Your task to perform on an android device: visit the assistant section in the google photos Image 0: 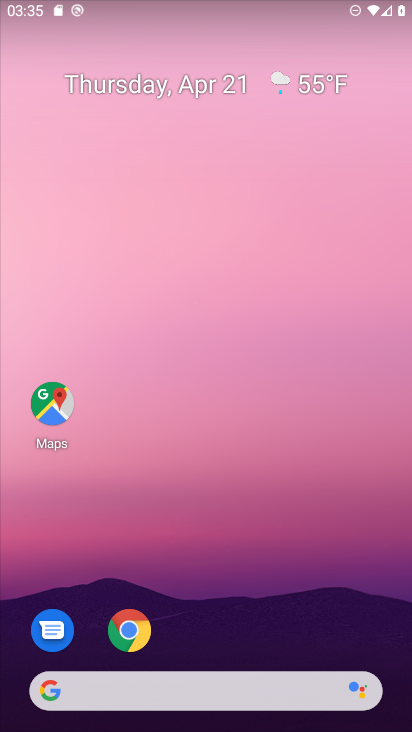
Step 0: drag from (280, 586) to (271, 158)
Your task to perform on an android device: visit the assistant section in the google photos Image 1: 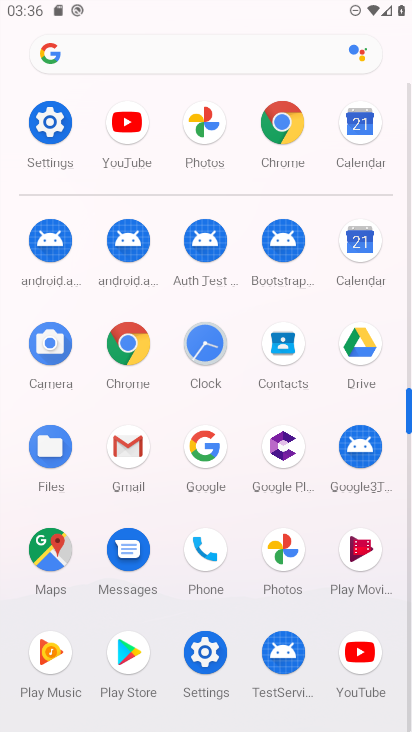
Step 1: click (202, 139)
Your task to perform on an android device: visit the assistant section in the google photos Image 2: 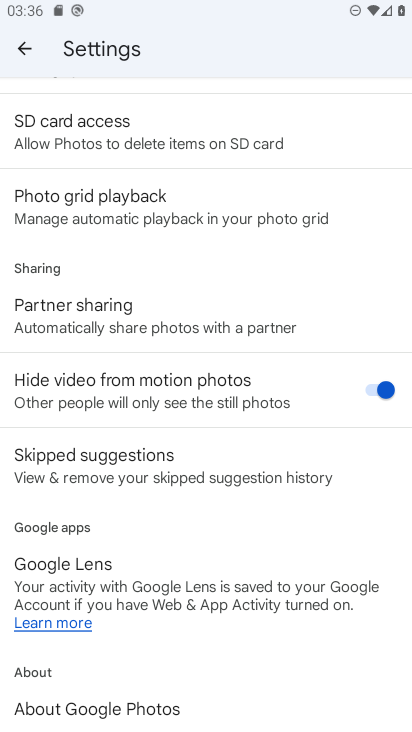
Step 2: click (28, 64)
Your task to perform on an android device: visit the assistant section in the google photos Image 3: 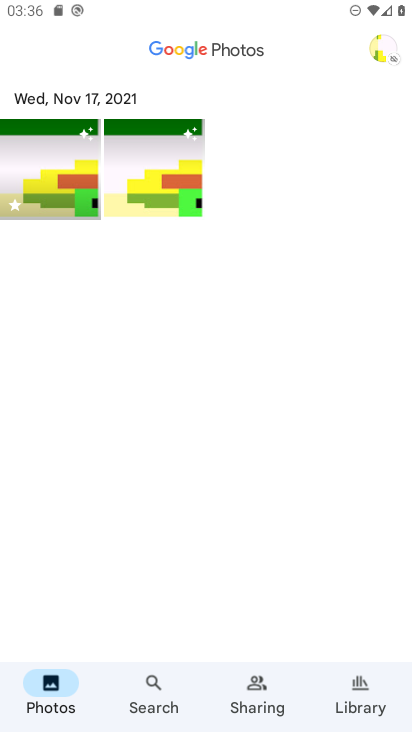
Step 3: task complete